Your task to perform on an android device: Search for Mexican restaurants on Maps Image 0: 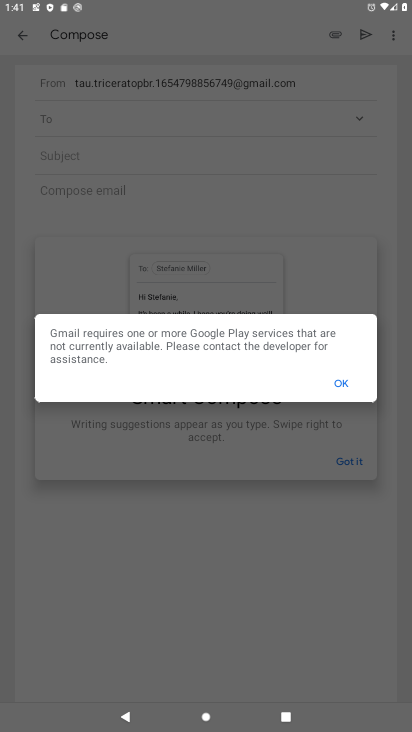
Step 0: press home button
Your task to perform on an android device: Search for Mexican restaurants on Maps Image 1: 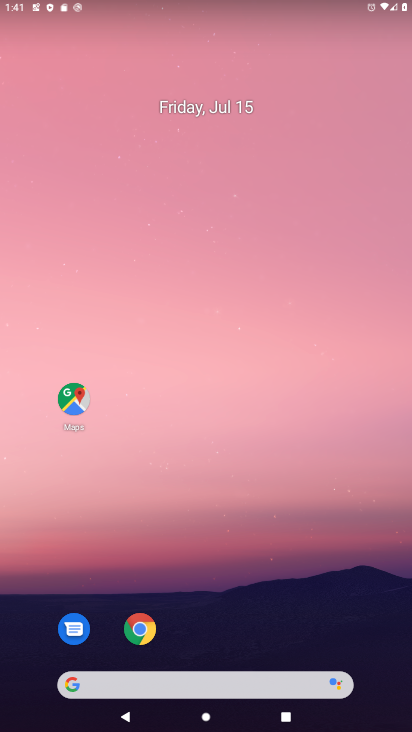
Step 1: drag from (267, 611) to (216, 135)
Your task to perform on an android device: Search for Mexican restaurants on Maps Image 2: 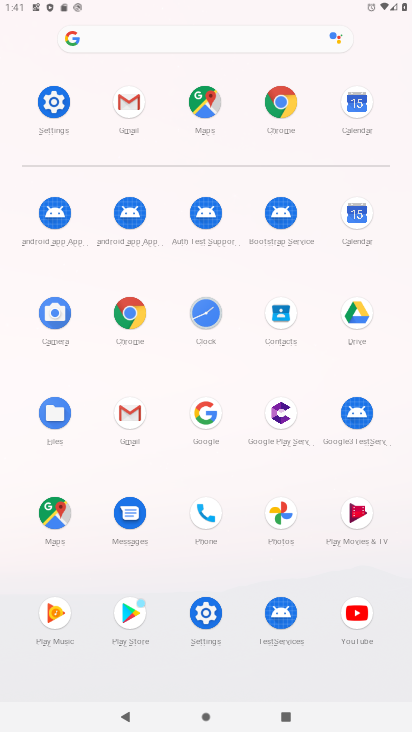
Step 2: click (200, 98)
Your task to perform on an android device: Search for Mexican restaurants on Maps Image 3: 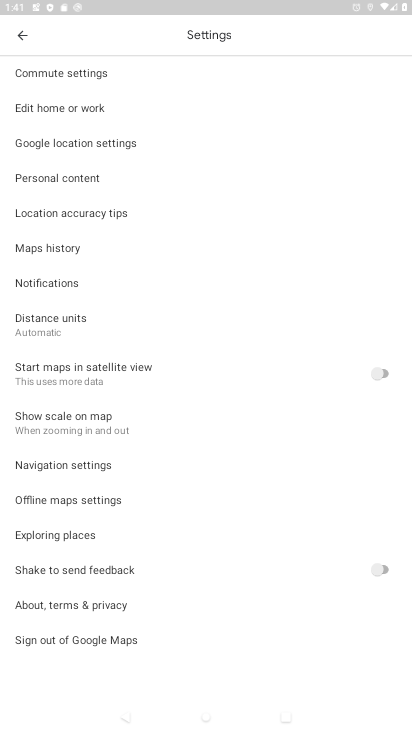
Step 3: click (31, 42)
Your task to perform on an android device: Search for Mexican restaurants on Maps Image 4: 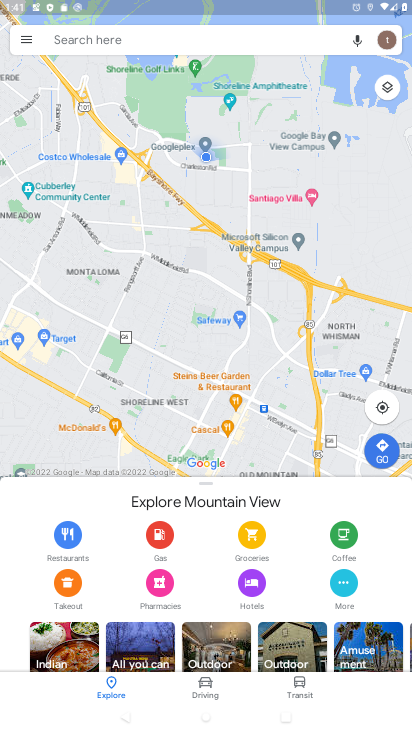
Step 4: click (149, 47)
Your task to perform on an android device: Search for Mexican restaurants on Maps Image 5: 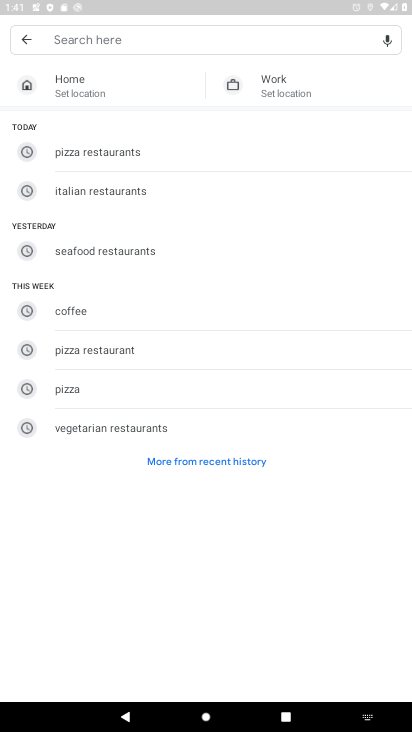
Step 5: type "Mexican restaurants"
Your task to perform on an android device: Search for Mexican restaurants on Maps Image 6: 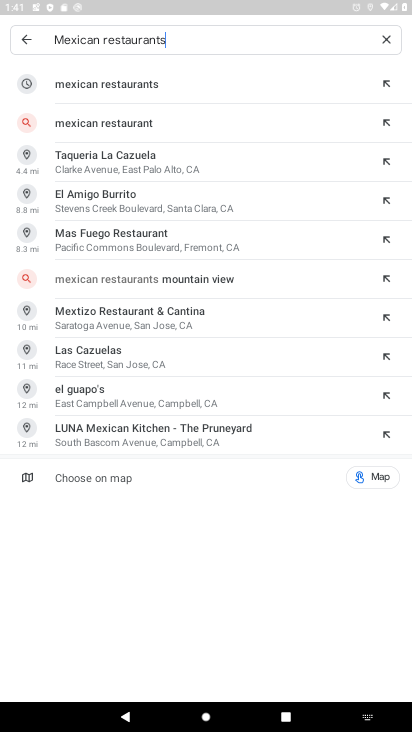
Step 6: click (92, 75)
Your task to perform on an android device: Search for Mexican restaurants on Maps Image 7: 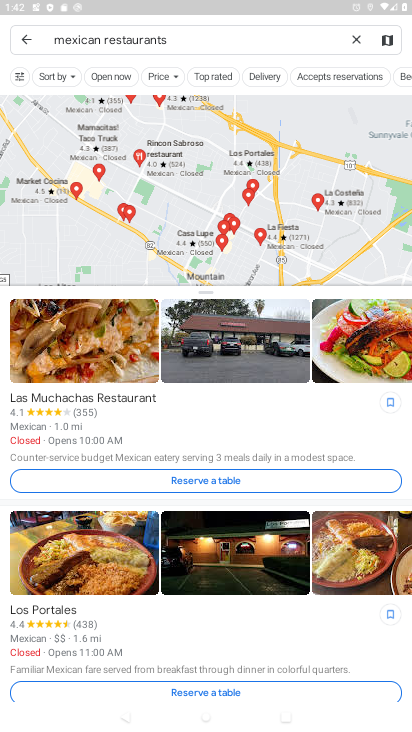
Step 7: task complete